Your task to perform on an android device: turn off wifi Image 0: 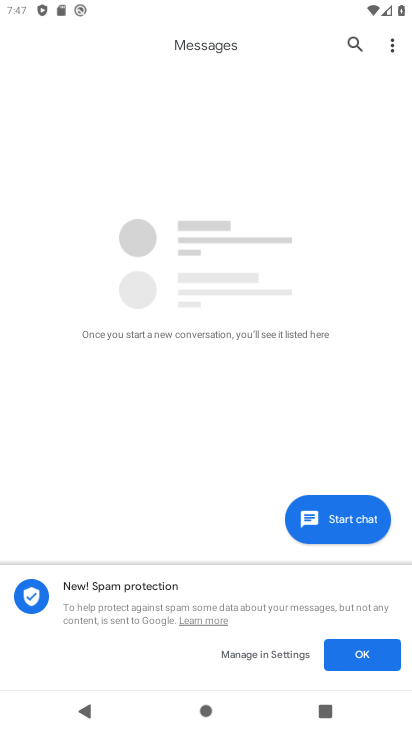
Step 0: press home button
Your task to perform on an android device: turn off wifi Image 1: 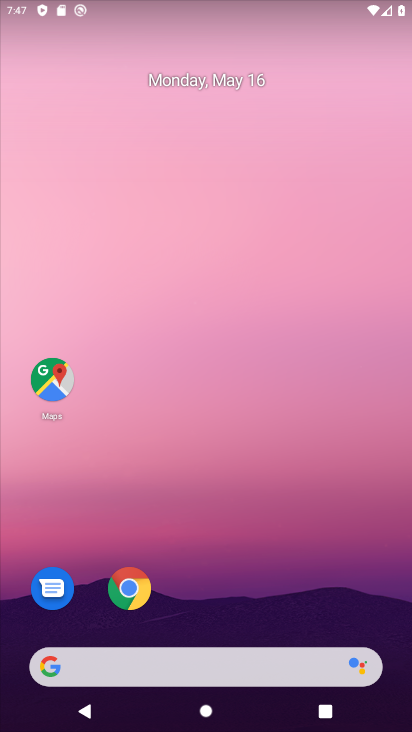
Step 1: drag from (235, 18) to (144, 580)
Your task to perform on an android device: turn off wifi Image 2: 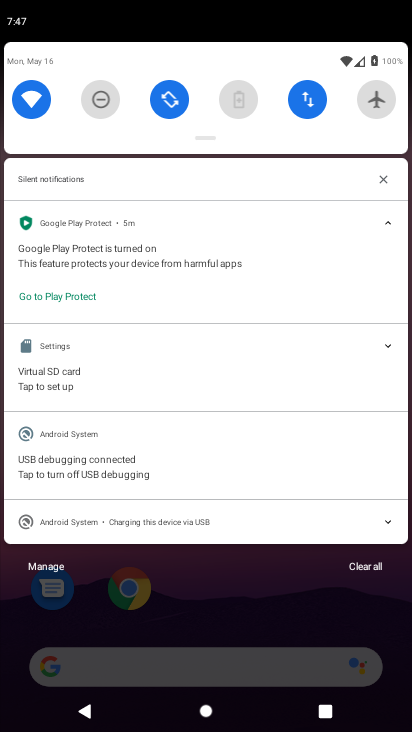
Step 2: click (25, 102)
Your task to perform on an android device: turn off wifi Image 3: 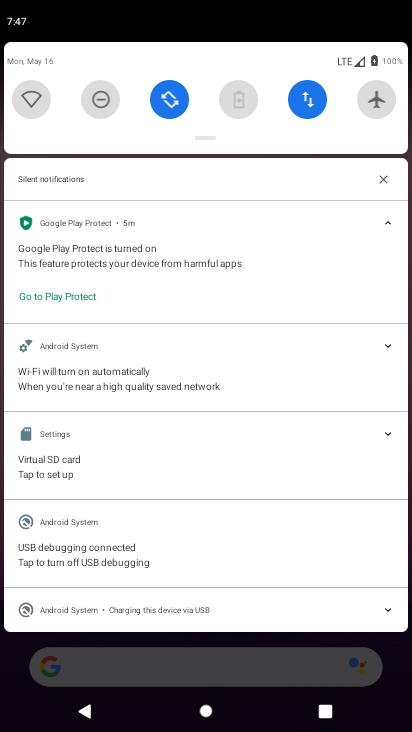
Step 3: task complete